Your task to perform on an android device: Open eBay Image 0: 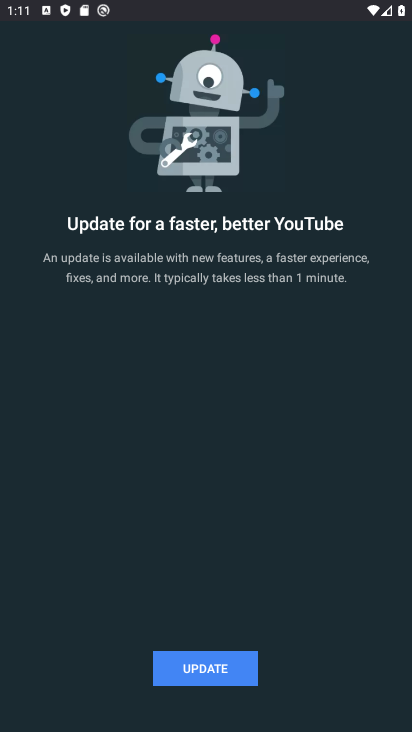
Step 0: press home button
Your task to perform on an android device: Open eBay Image 1: 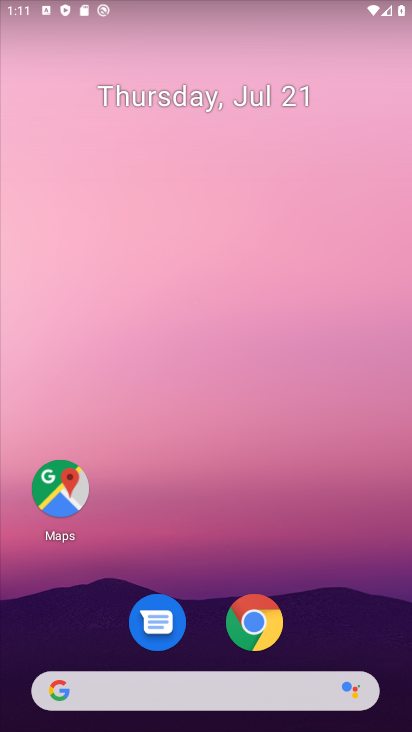
Step 1: click (246, 628)
Your task to perform on an android device: Open eBay Image 2: 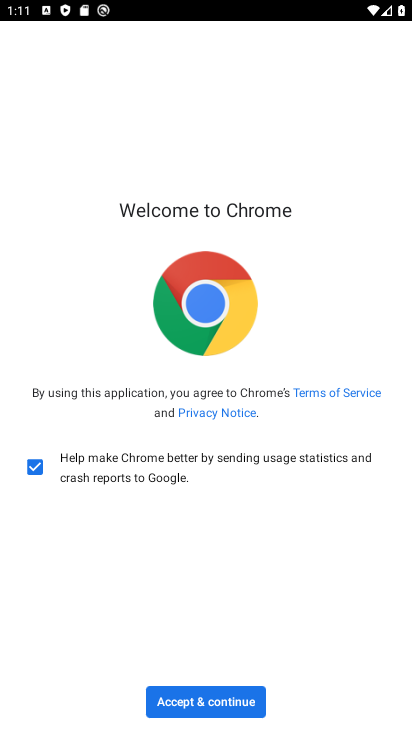
Step 2: click (184, 715)
Your task to perform on an android device: Open eBay Image 3: 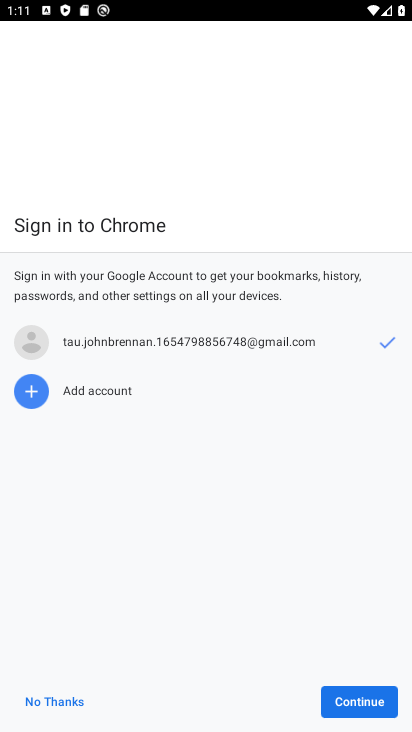
Step 3: click (346, 711)
Your task to perform on an android device: Open eBay Image 4: 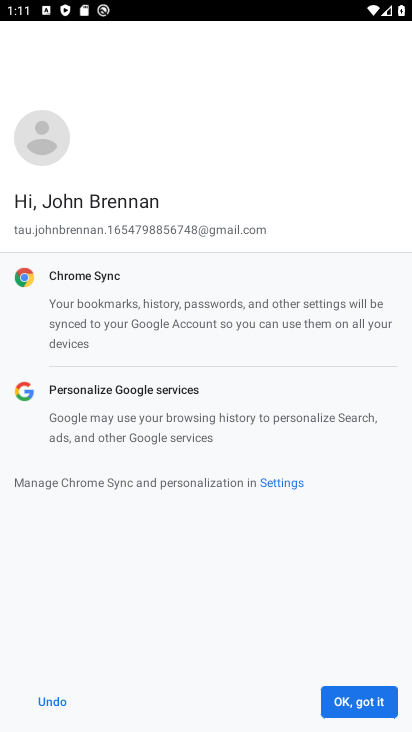
Step 4: click (348, 702)
Your task to perform on an android device: Open eBay Image 5: 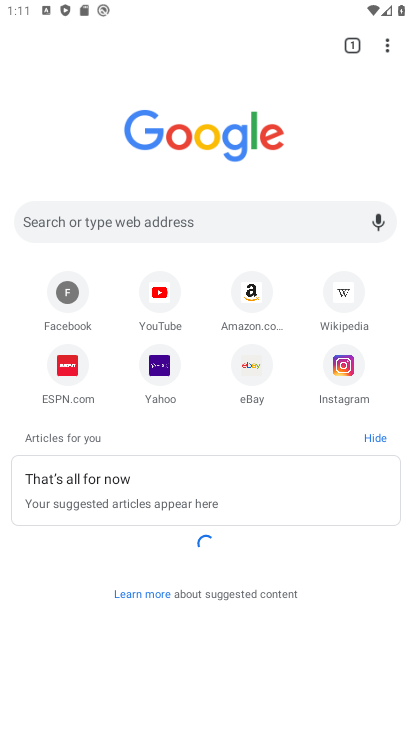
Step 5: click (254, 369)
Your task to perform on an android device: Open eBay Image 6: 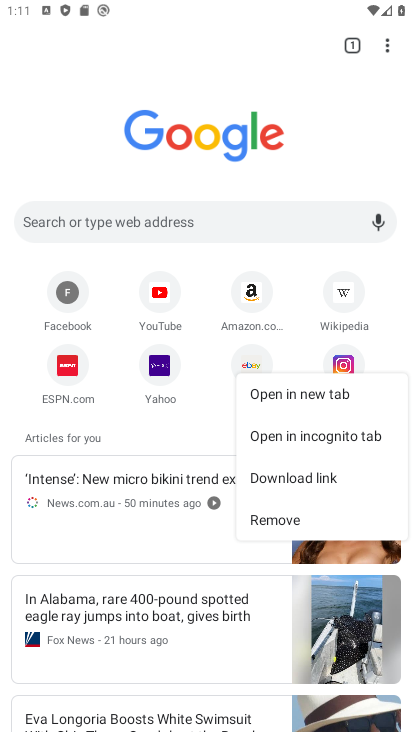
Step 6: click (255, 363)
Your task to perform on an android device: Open eBay Image 7: 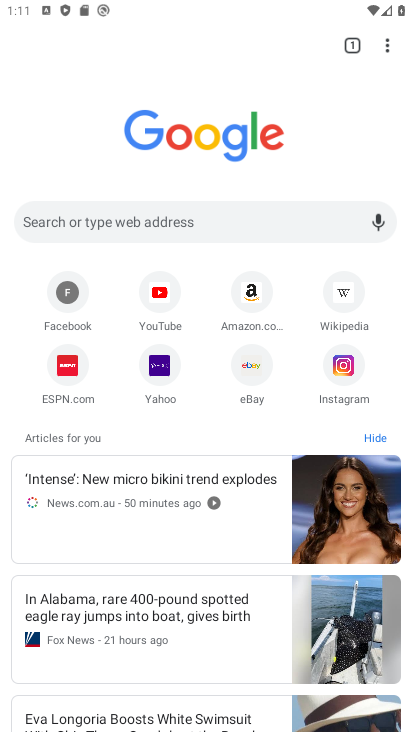
Step 7: click (249, 379)
Your task to perform on an android device: Open eBay Image 8: 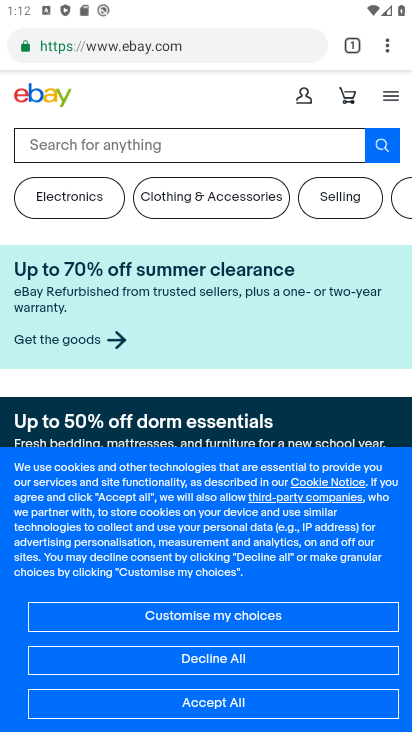
Step 8: click (251, 705)
Your task to perform on an android device: Open eBay Image 9: 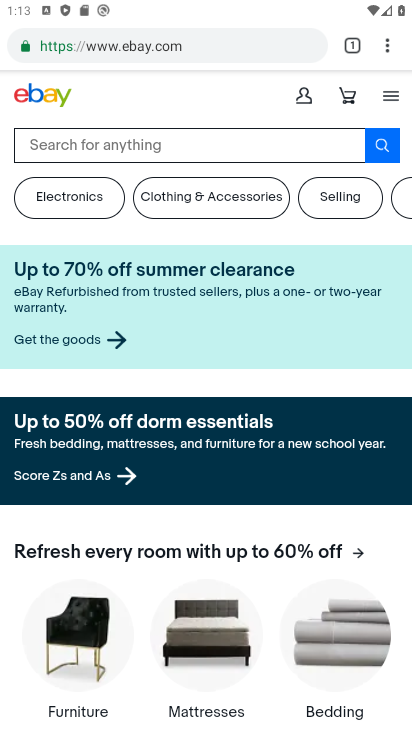
Step 9: task complete